Your task to perform on an android device: delete the emails in spam in the gmail app Image 0: 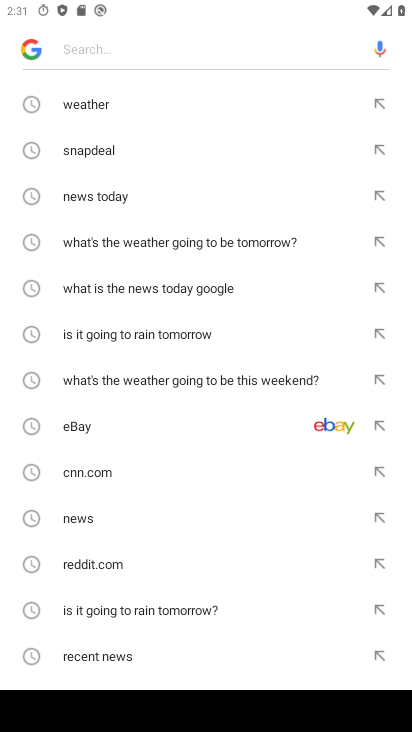
Step 0: press home button
Your task to perform on an android device: delete the emails in spam in the gmail app Image 1: 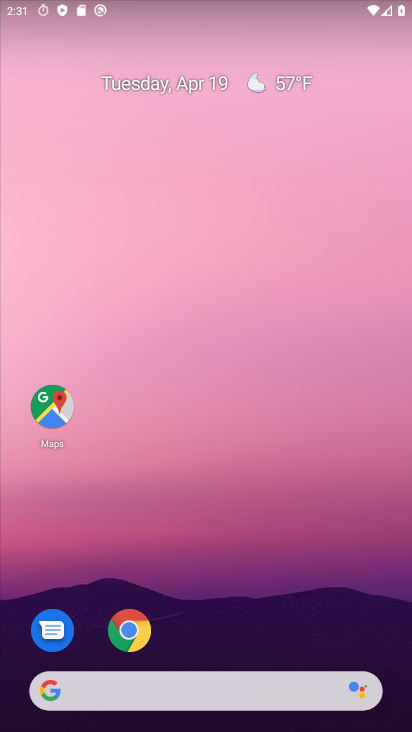
Step 1: drag from (237, 620) to (202, 35)
Your task to perform on an android device: delete the emails in spam in the gmail app Image 2: 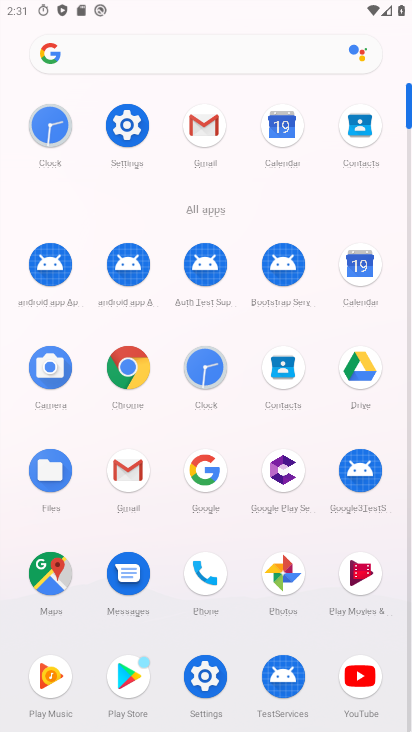
Step 2: click (199, 115)
Your task to perform on an android device: delete the emails in spam in the gmail app Image 3: 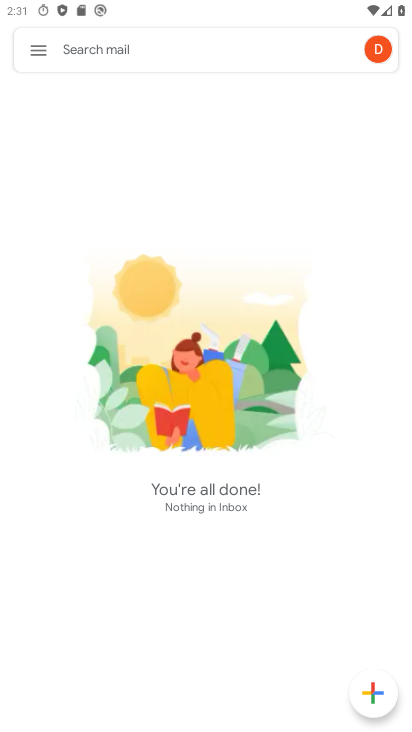
Step 3: click (42, 55)
Your task to perform on an android device: delete the emails in spam in the gmail app Image 4: 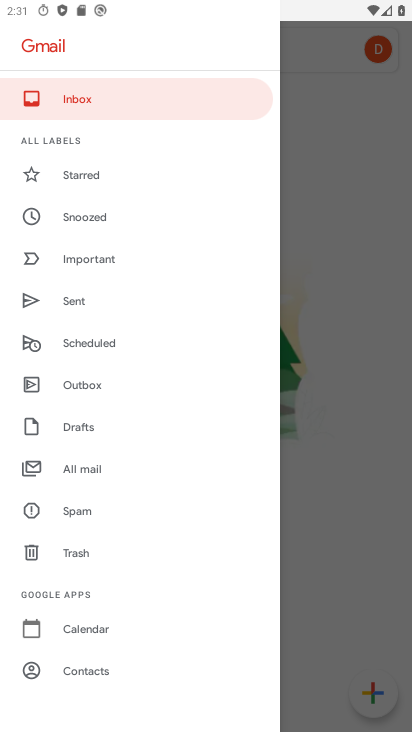
Step 4: click (93, 512)
Your task to perform on an android device: delete the emails in spam in the gmail app Image 5: 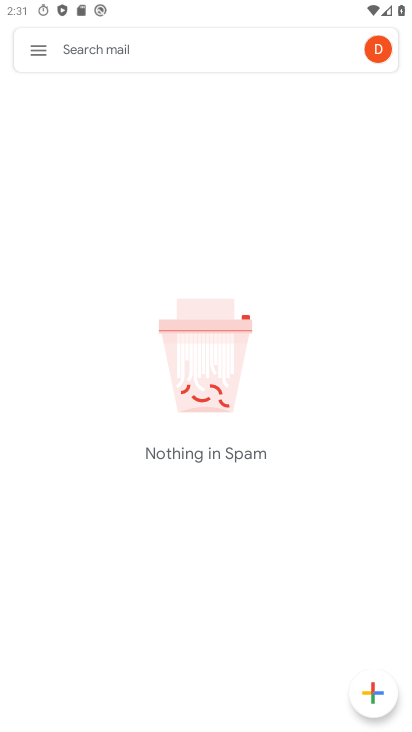
Step 5: task complete